Your task to perform on an android device: Open Chrome and go to settings Image 0: 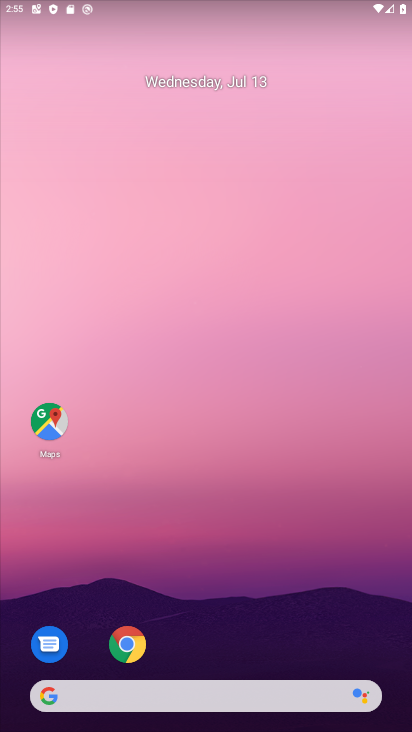
Step 0: drag from (259, 596) to (203, 88)
Your task to perform on an android device: Open Chrome and go to settings Image 1: 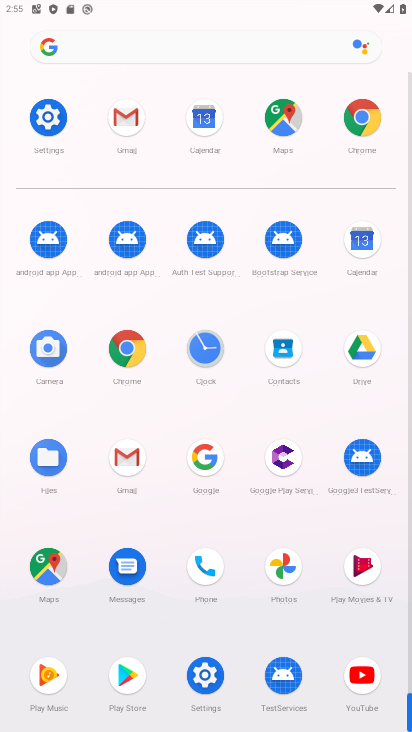
Step 1: click (370, 116)
Your task to perform on an android device: Open Chrome and go to settings Image 2: 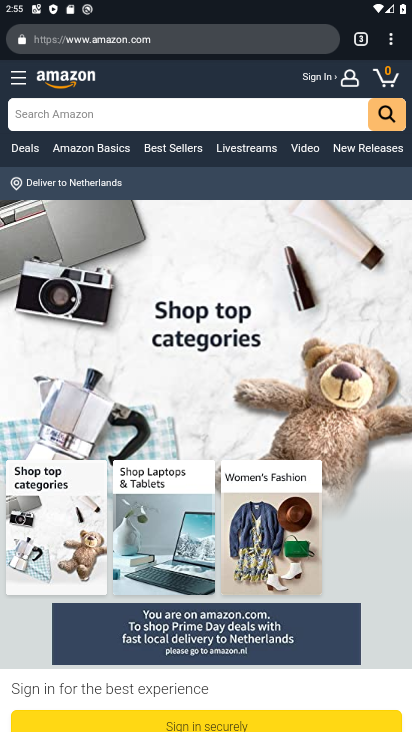
Step 2: click (394, 38)
Your task to perform on an android device: Open Chrome and go to settings Image 3: 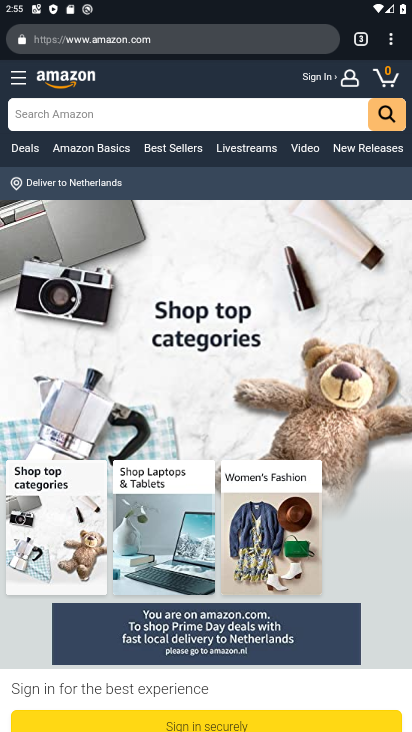
Step 3: task complete